Your task to perform on an android device: Show me productivity apps on the Play Store Image 0: 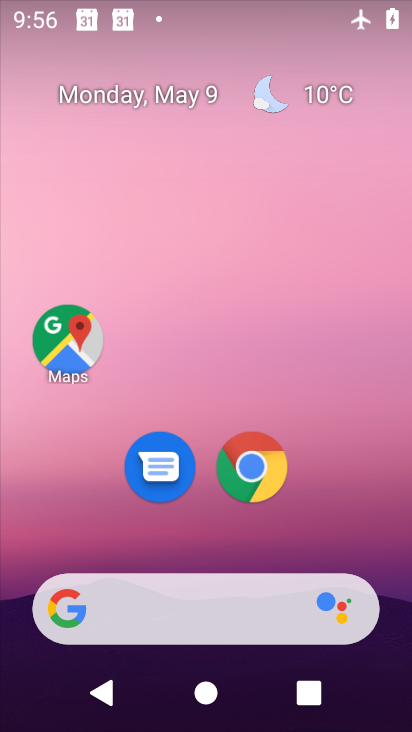
Step 0: drag from (367, 564) to (395, 1)
Your task to perform on an android device: Show me productivity apps on the Play Store Image 1: 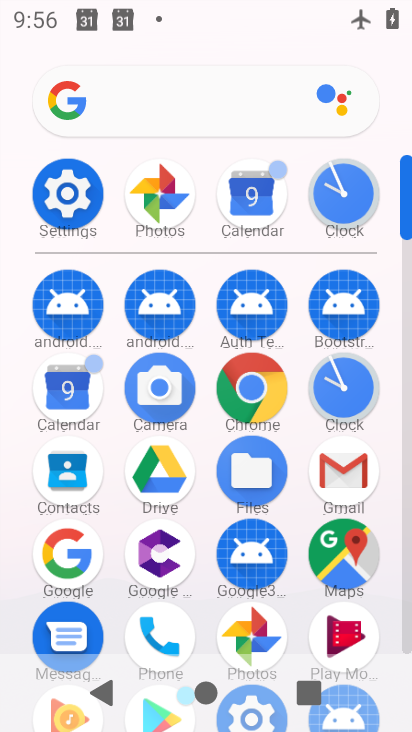
Step 1: drag from (409, 557) to (407, 470)
Your task to perform on an android device: Show me productivity apps on the Play Store Image 2: 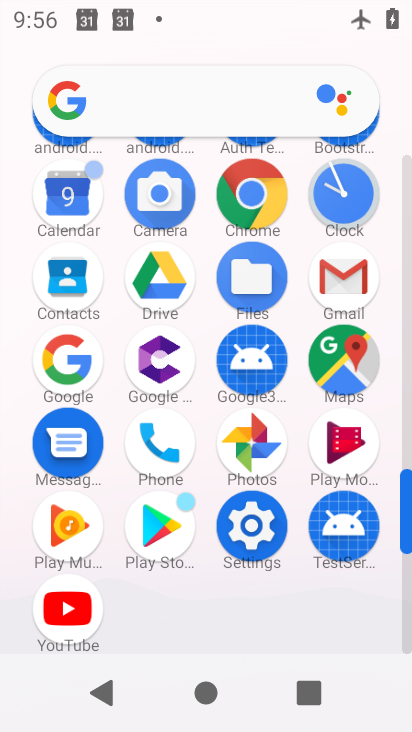
Step 2: click (150, 540)
Your task to perform on an android device: Show me productivity apps on the Play Store Image 3: 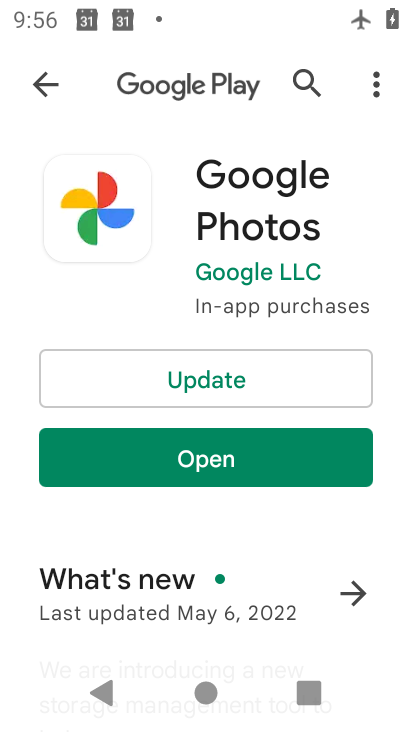
Step 3: click (37, 82)
Your task to perform on an android device: Show me productivity apps on the Play Store Image 4: 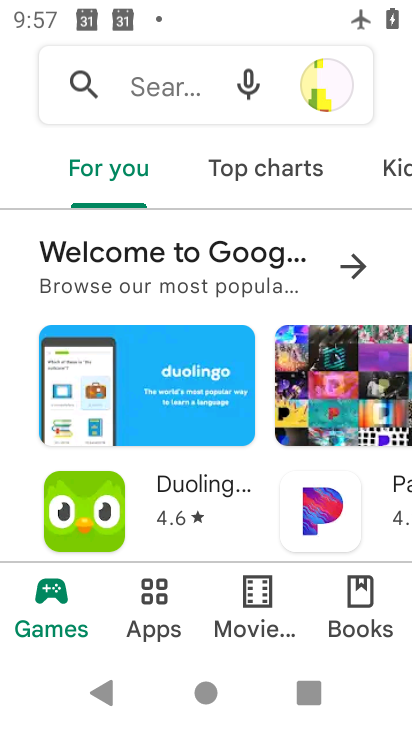
Step 4: click (152, 614)
Your task to perform on an android device: Show me productivity apps on the Play Store Image 5: 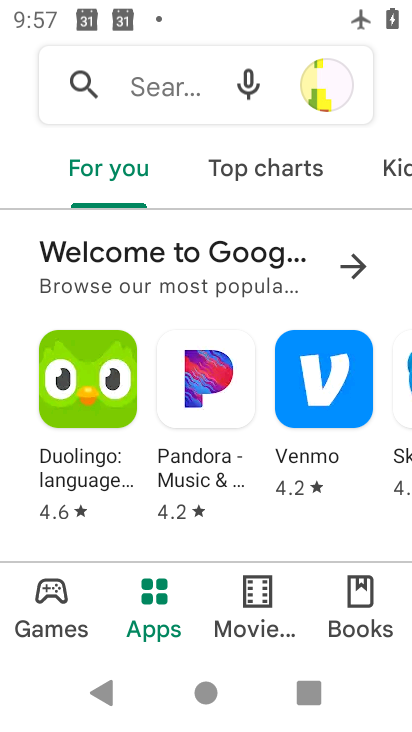
Step 5: drag from (342, 182) to (16, 225)
Your task to perform on an android device: Show me productivity apps on the Play Store Image 6: 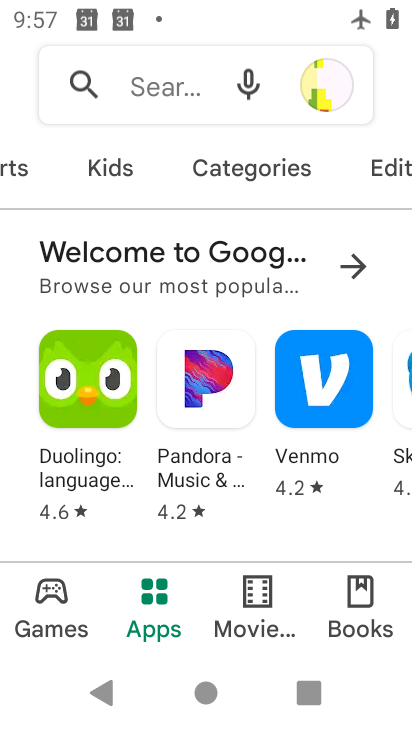
Step 6: click (226, 176)
Your task to perform on an android device: Show me productivity apps on the Play Store Image 7: 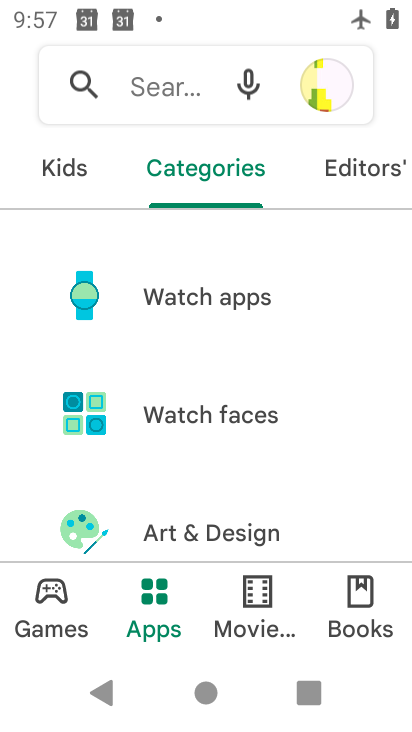
Step 7: drag from (292, 490) to (297, 64)
Your task to perform on an android device: Show me productivity apps on the Play Store Image 8: 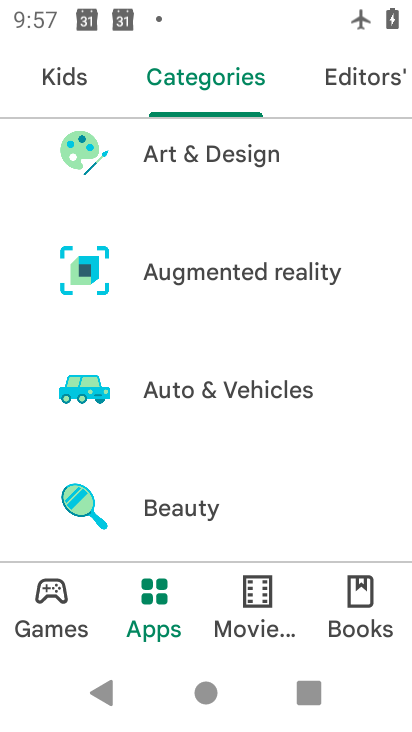
Step 8: drag from (287, 413) to (237, 48)
Your task to perform on an android device: Show me productivity apps on the Play Store Image 9: 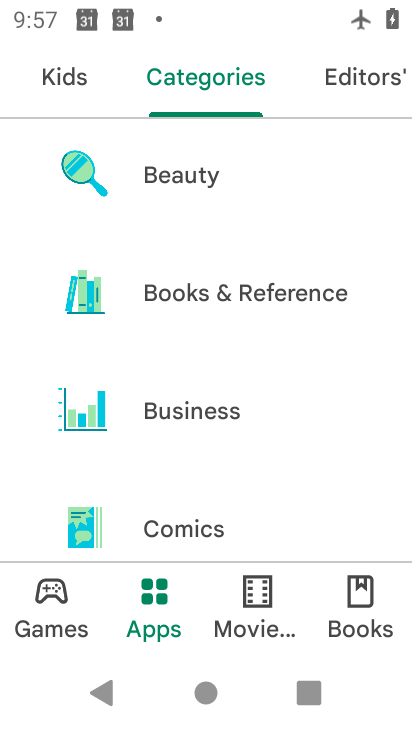
Step 9: drag from (269, 396) to (245, 50)
Your task to perform on an android device: Show me productivity apps on the Play Store Image 10: 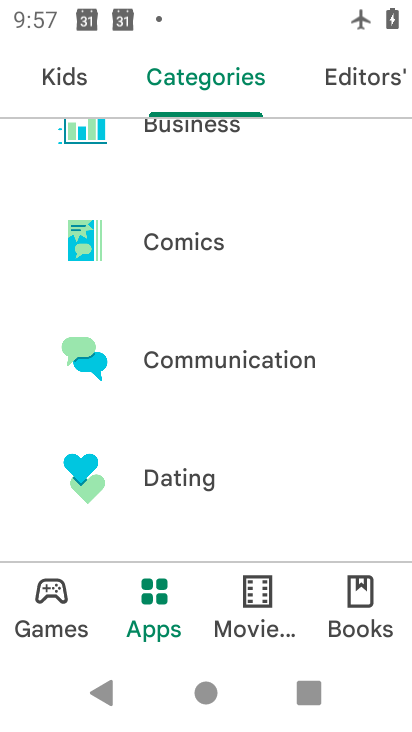
Step 10: drag from (285, 402) to (270, 27)
Your task to perform on an android device: Show me productivity apps on the Play Store Image 11: 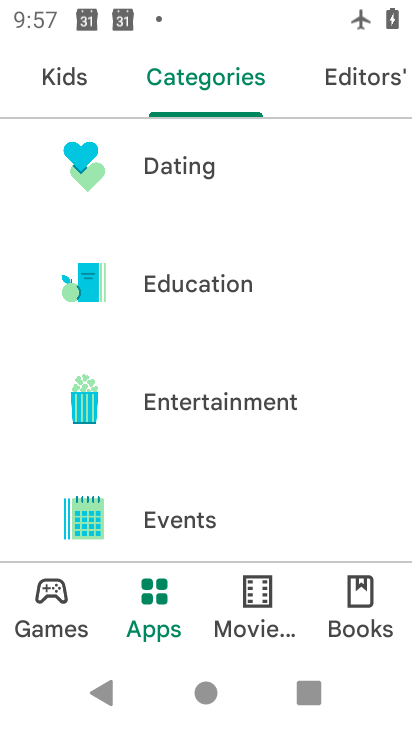
Step 11: drag from (250, 404) to (227, 100)
Your task to perform on an android device: Show me productivity apps on the Play Store Image 12: 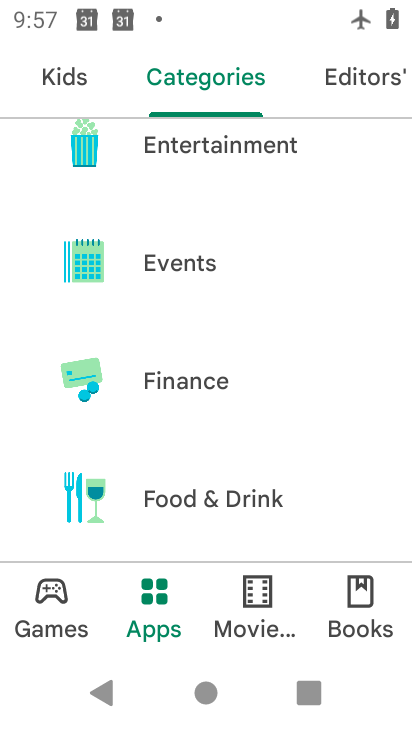
Step 12: drag from (209, 387) to (175, 2)
Your task to perform on an android device: Show me productivity apps on the Play Store Image 13: 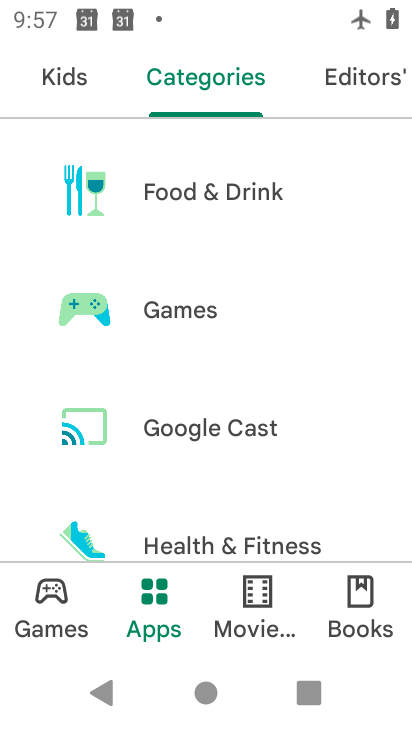
Step 13: drag from (193, 443) to (183, 155)
Your task to perform on an android device: Show me productivity apps on the Play Store Image 14: 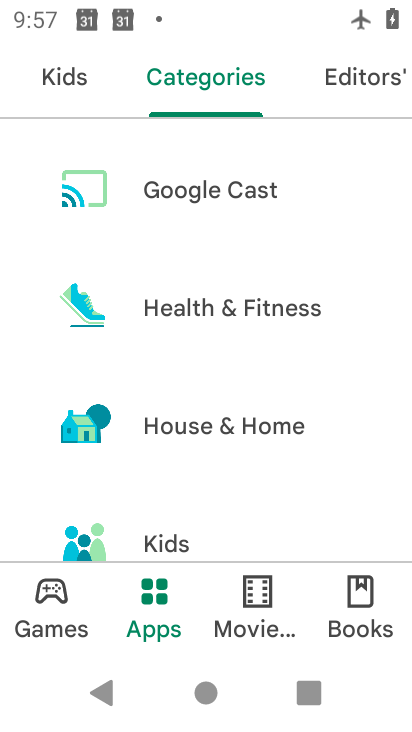
Step 14: drag from (248, 520) to (215, 53)
Your task to perform on an android device: Show me productivity apps on the Play Store Image 15: 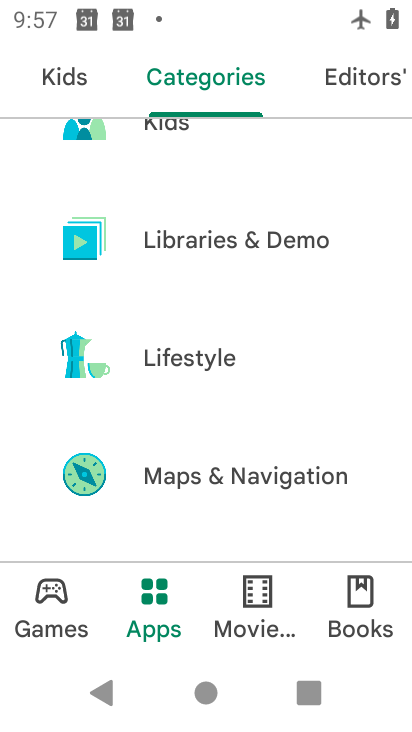
Step 15: drag from (213, 407) to (198, 34)
Your task to perform on an android device: Show me productivity apps on the Play Store Image 16: 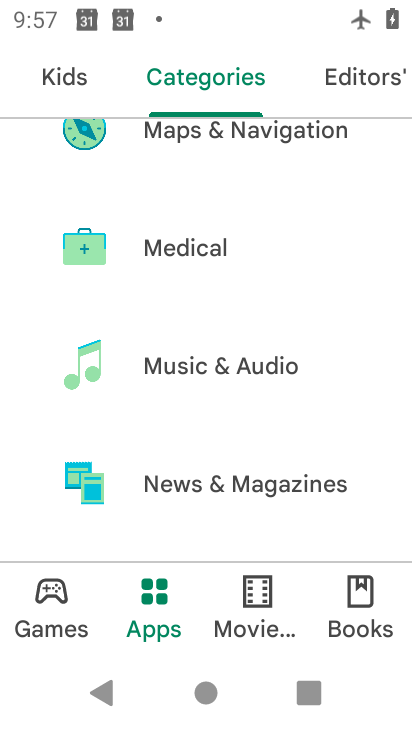
Step 16: drag from (242, 418) to (218, 10)
Your task to perform on an android device: Show me productivity apps on the Play Store Image 17: 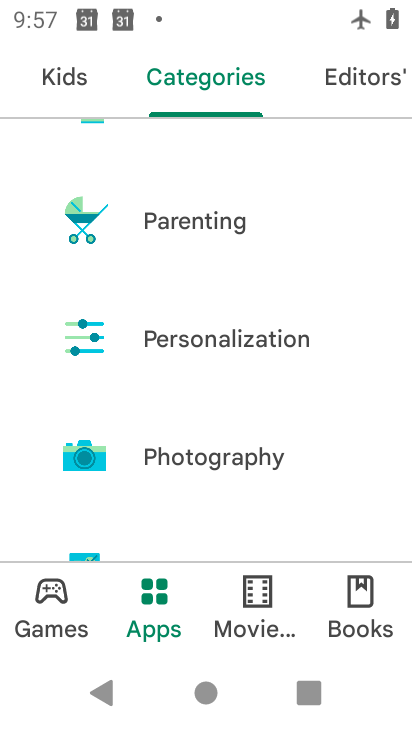
Step 17: drag from (276, 439) to (245, 157)
Your task to perform on an android device: Show me productivity apps on the Play Store Image 18: 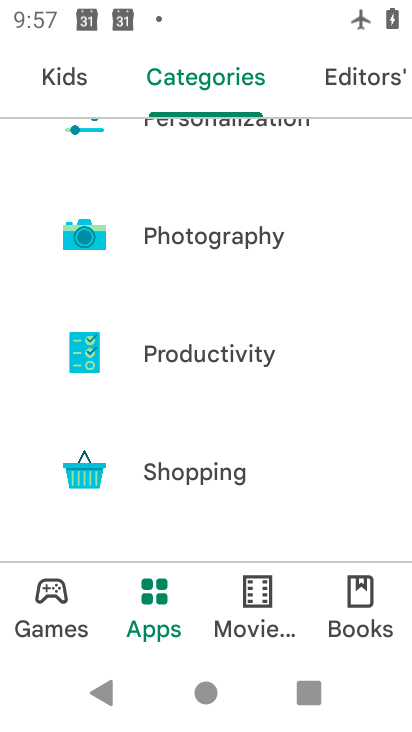
Step 18: click (211, 361)
Your task to perform on an android device: Show me productivity apps on the Play Store Image 19: 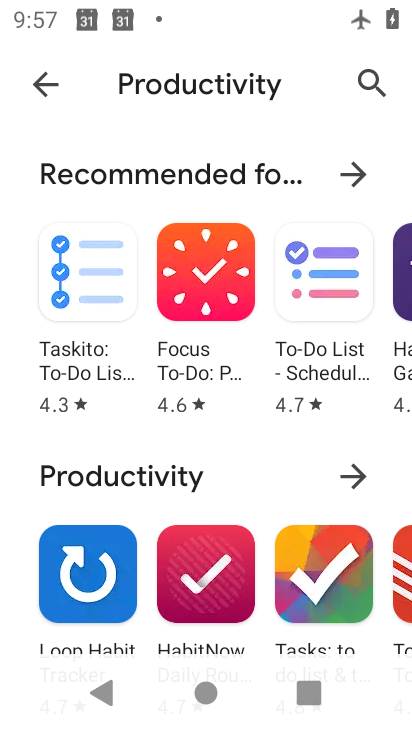
Step 19: task complete